Your task to perform on an android device: move a message to another label in the gmail app Image 0: 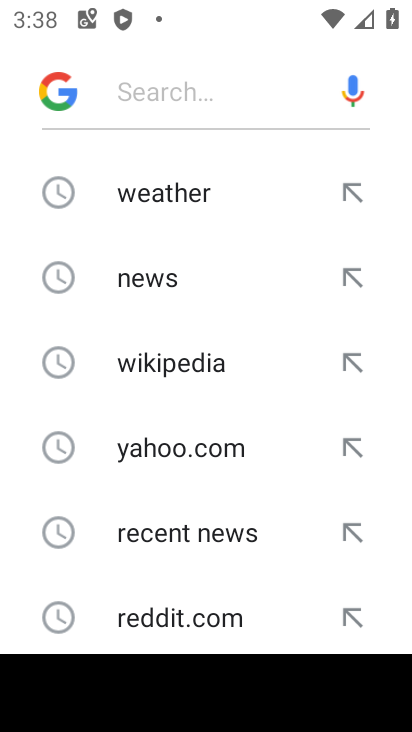
Step 0: press back button
Your task to perform on an android device: move a message to another label in the gmail app Image 1: 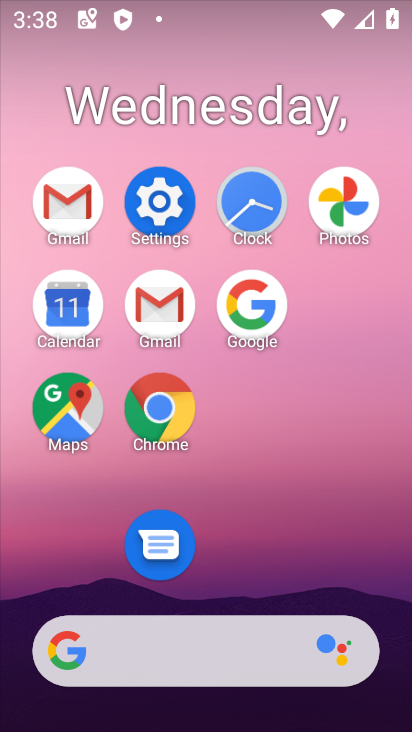
Step 1: click (179, 307)
Your task to perform on an android device: move a message to another label in the gmail app Image 2: 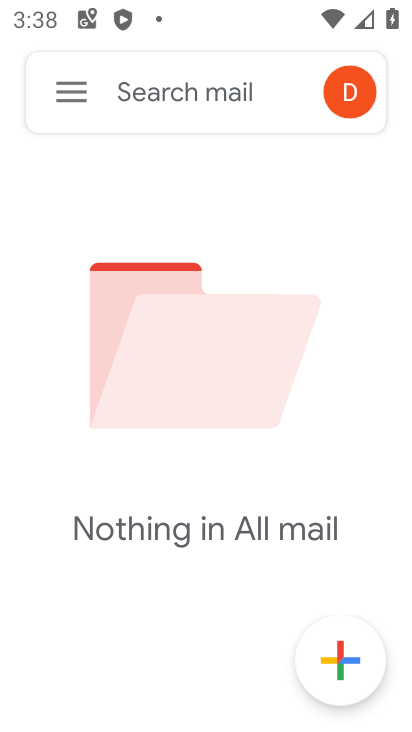
Step 2: click (83, 97)
Your task to perform on an android device: move a message to another label in the gmail app Image 3: 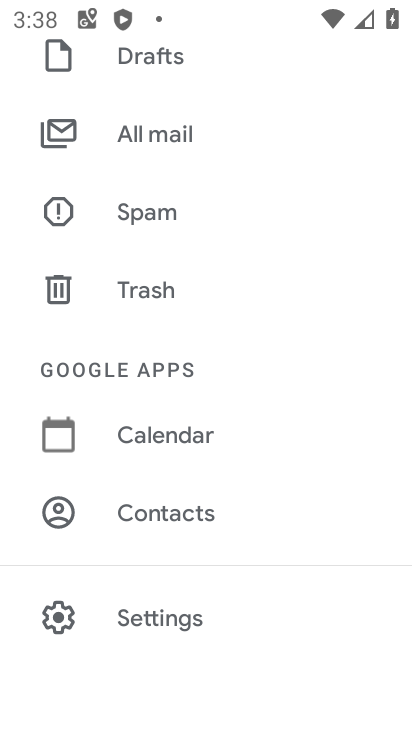
Step 3: click (195, 152)
Your task to perform on an android device: move a message to another label in the gmail app Image 4: 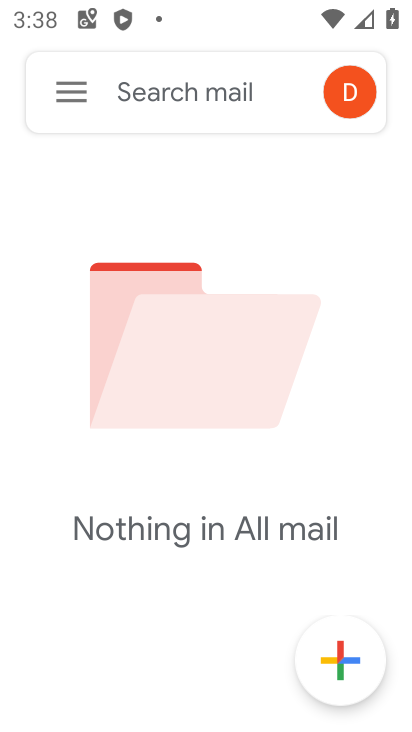
Step 4: task complete